Your task to perform on an android device: Empty the shopping cart on target. Add razer huntsman to the cart on target Image 0: 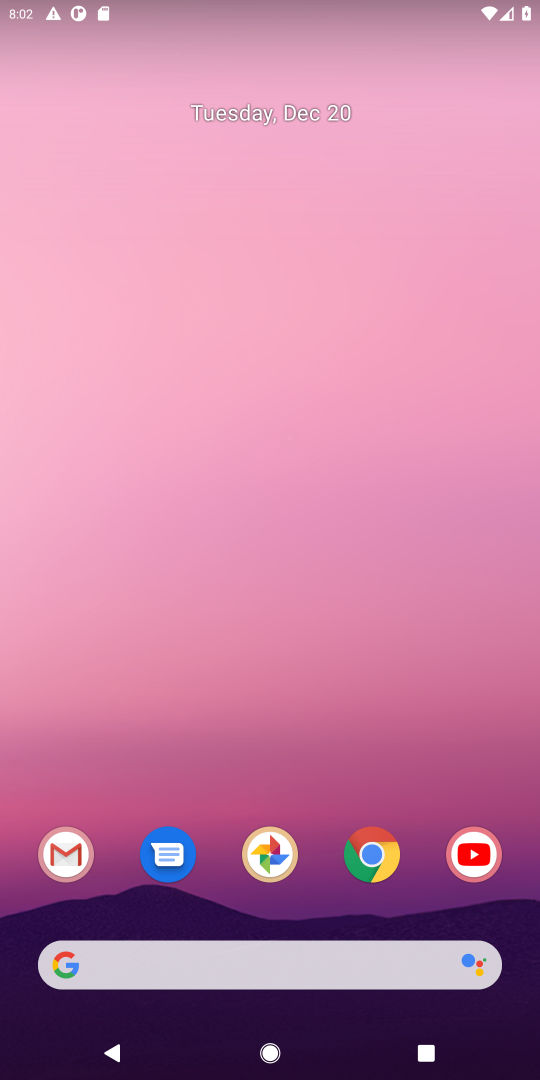
Step 0: click (370, 861)
Your task to perform on an android device: Empty the shopping cart on target. Add razer huntsman to the cart on target Image 1: 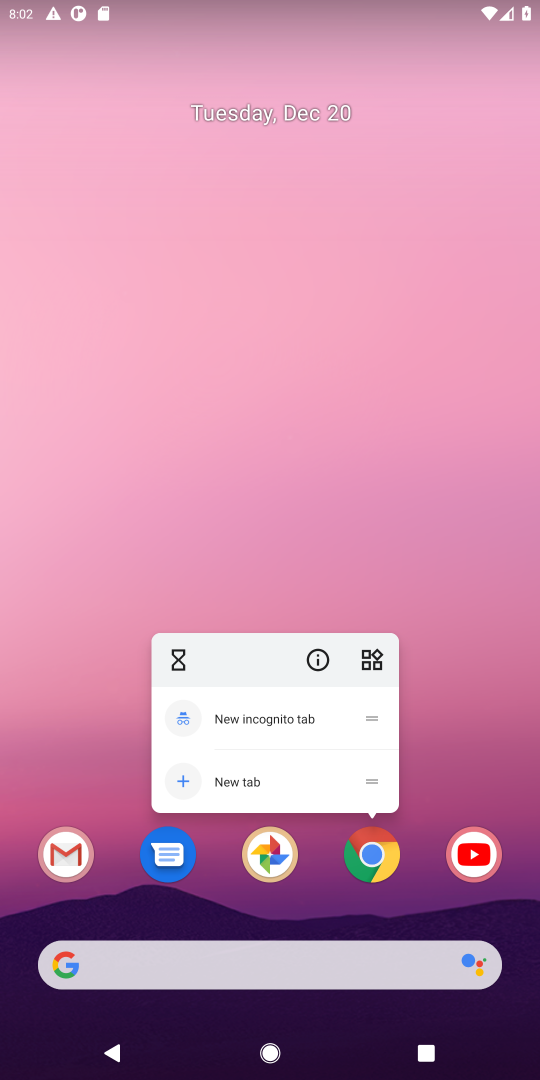
Step 1: click (370, 861)
Your task to perform on an android device: Empty the shopping cart on target. Add razer huntsman to the cart on target Image 2: 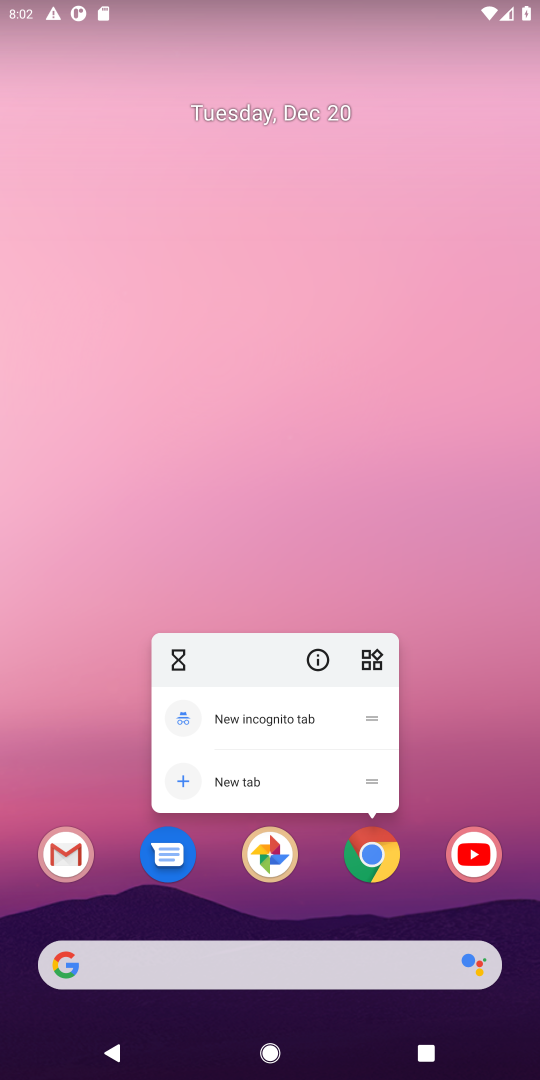
Step 2: click (370, 861)
Your task to perform on an android device: Empty the shopping cart on target. Add razer huntsman to the cart on target Image 3: 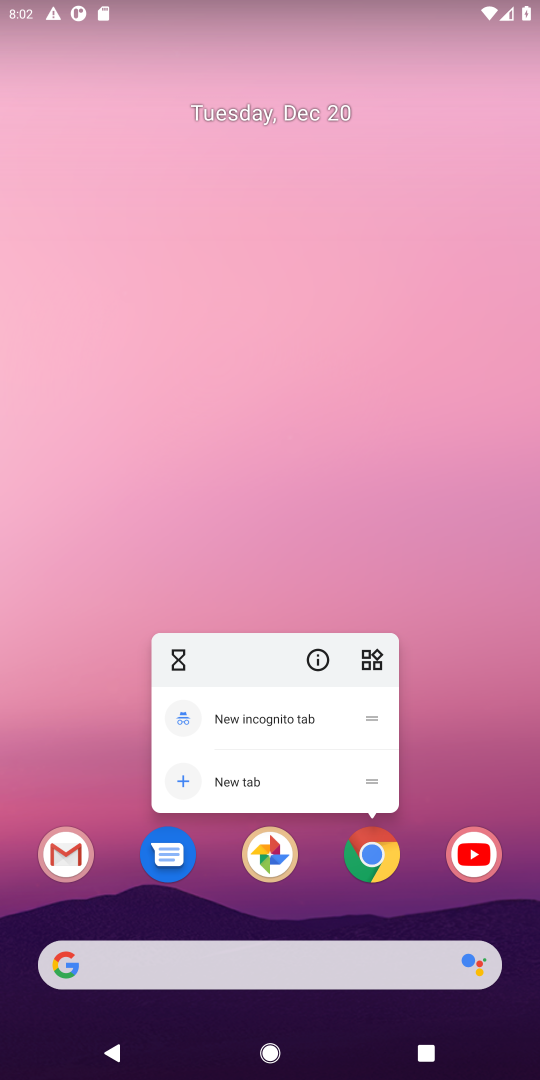
Step 3: click (373, 854)
Your task to perform on an android device: Empty the shopping cart on target. Add razer huntsman to the cart on target Image 4: 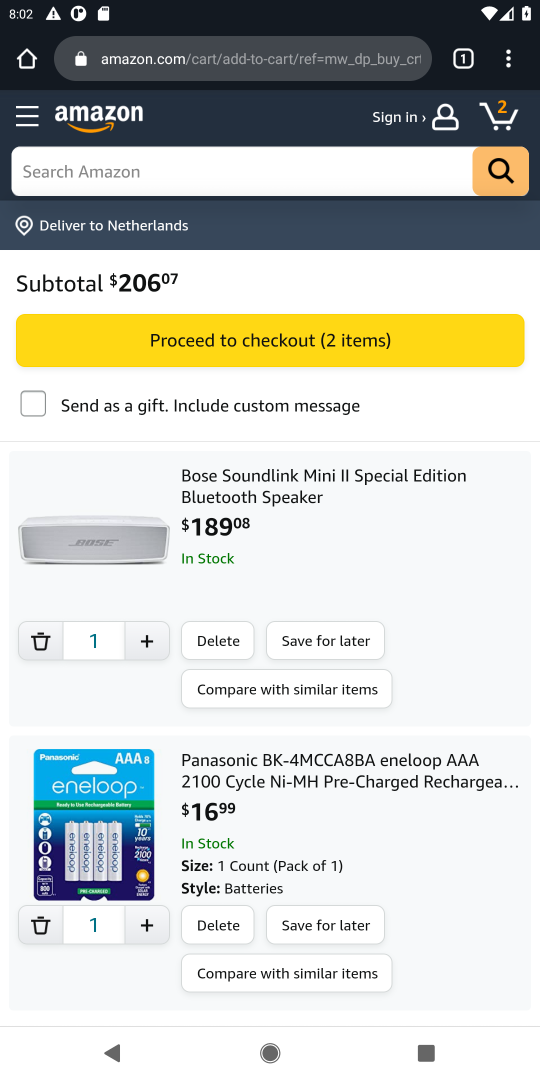
Step 4: click (180, 64)
Your task to perform on an android device: Empty the shopping cart on target. Add razer huntsman to the cart on target Image 5: 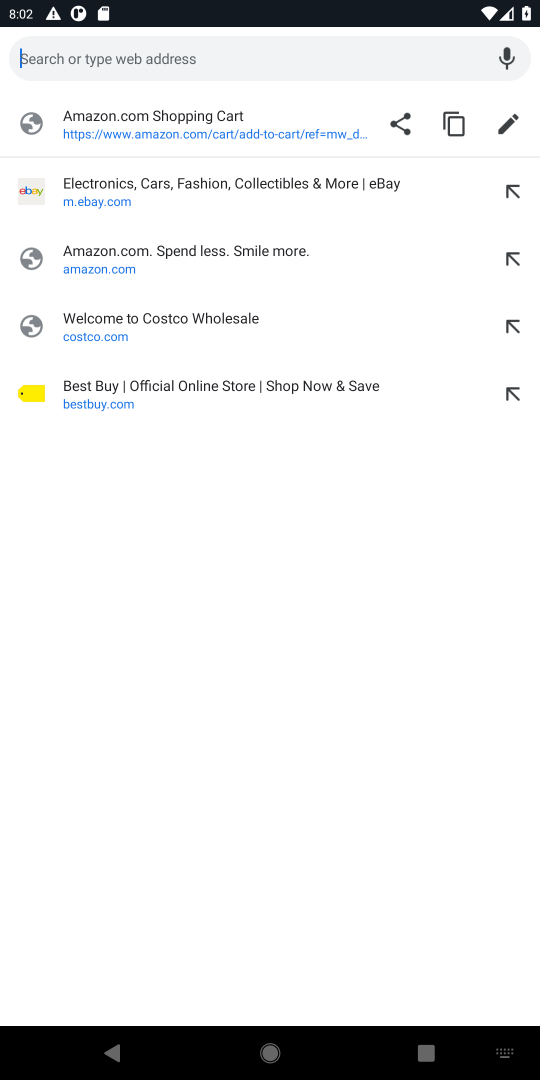
Step 5: type "target.com"
Your task to perform on an android device: Empty the shopping cart on target. Add razer huntsman to the cart on target Image 6: 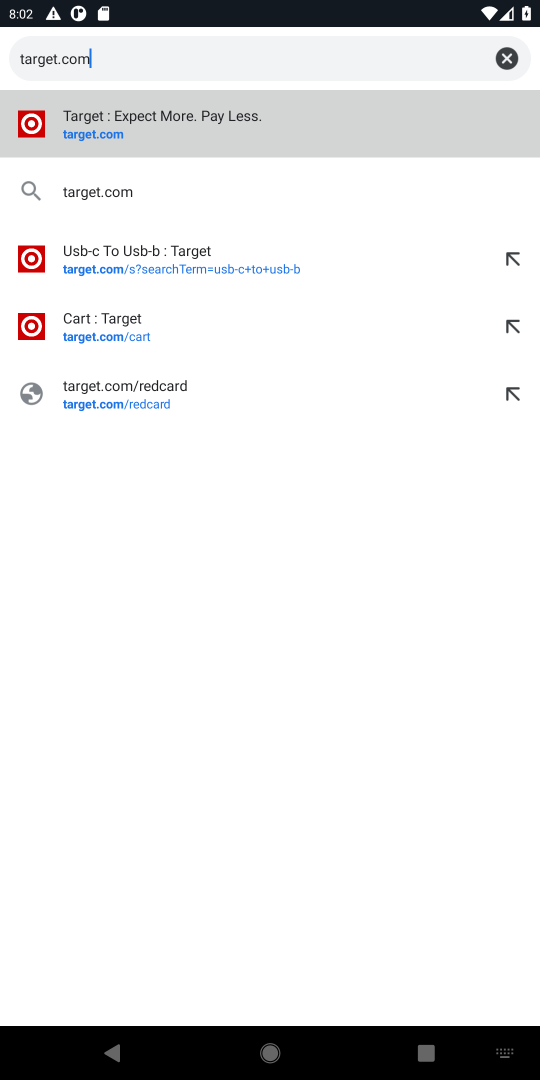
Step 6: click (76, 134)
Your task to perform on an android device: Empty the shopping cart on target. Add razer huntsman to the cart on target Image 7: 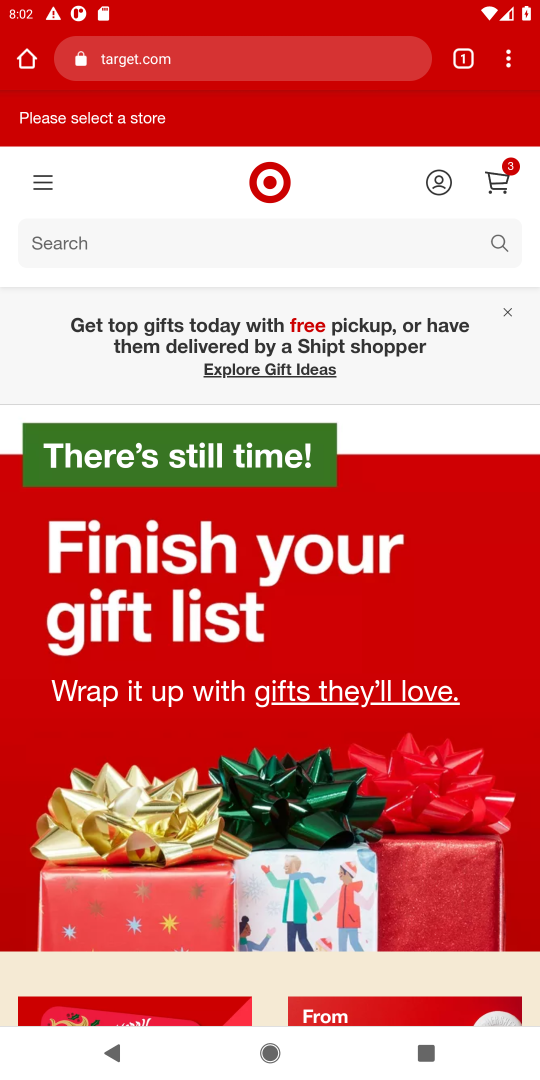
Step 7: click (491, 181)
Your task to perform on an android device: Empty the shopping cart on target. Add razer huntsman to the cart on target Image 8: 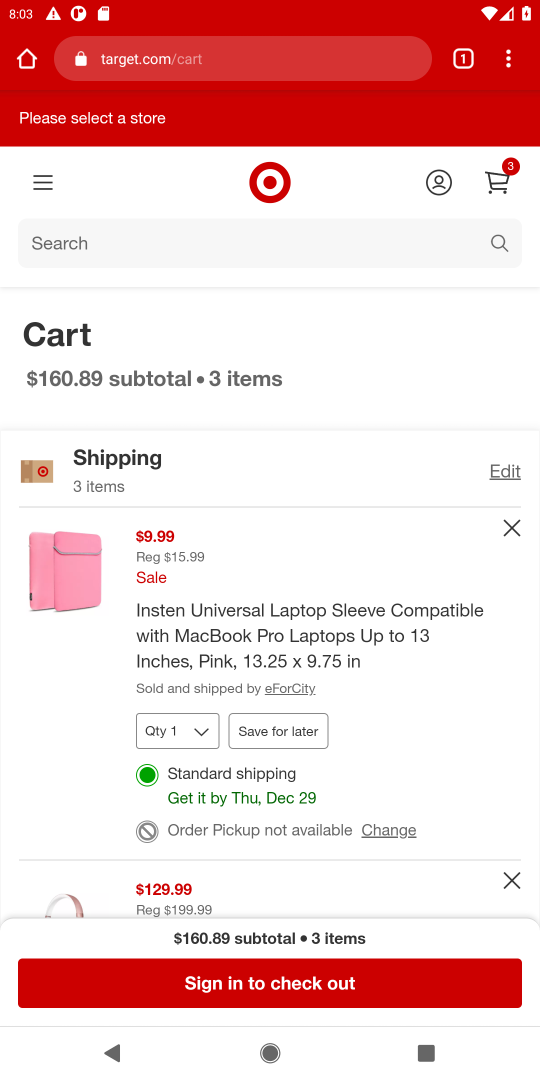
Step 8: click (505, 534)
Your task to perform on an android device: Empty the shopping cart on target. Add razer huntsman to the cart on target Image 9: 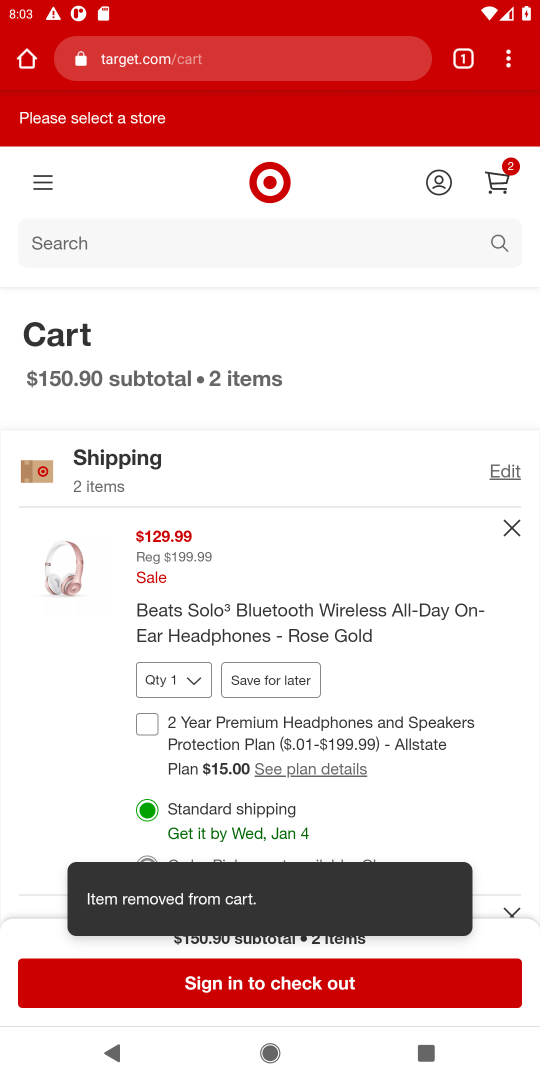
Step 9: click (505, 534)
Your task to perform on an android device: Empty the shopping cart on target. Add razer huntsman to the cart on target Image 10: 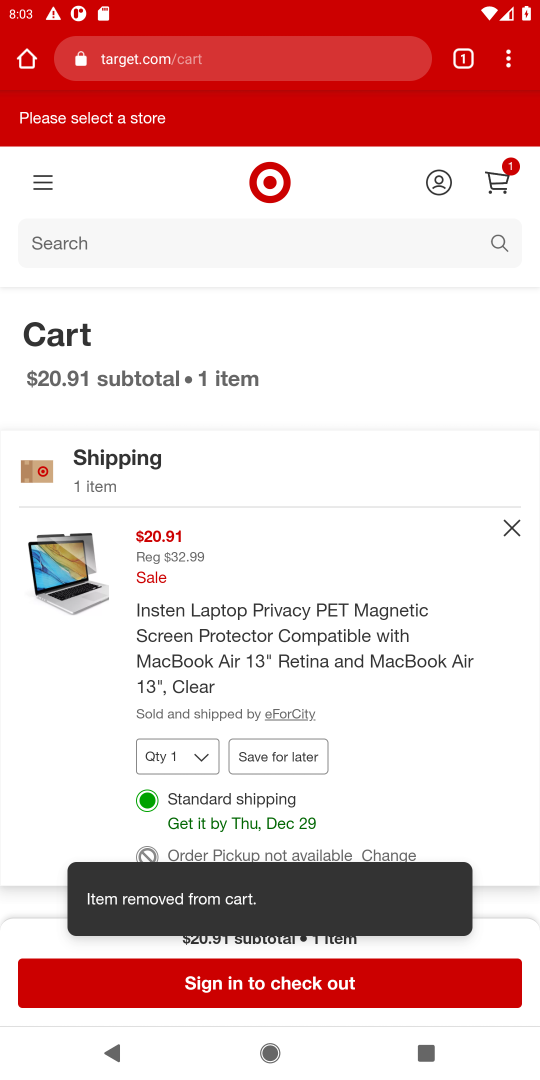
Step 10: click (505, 534)
Your task to perform on an android device: Empty the shopping cart on target. Add razer huntsman to the cart on target Image 11: 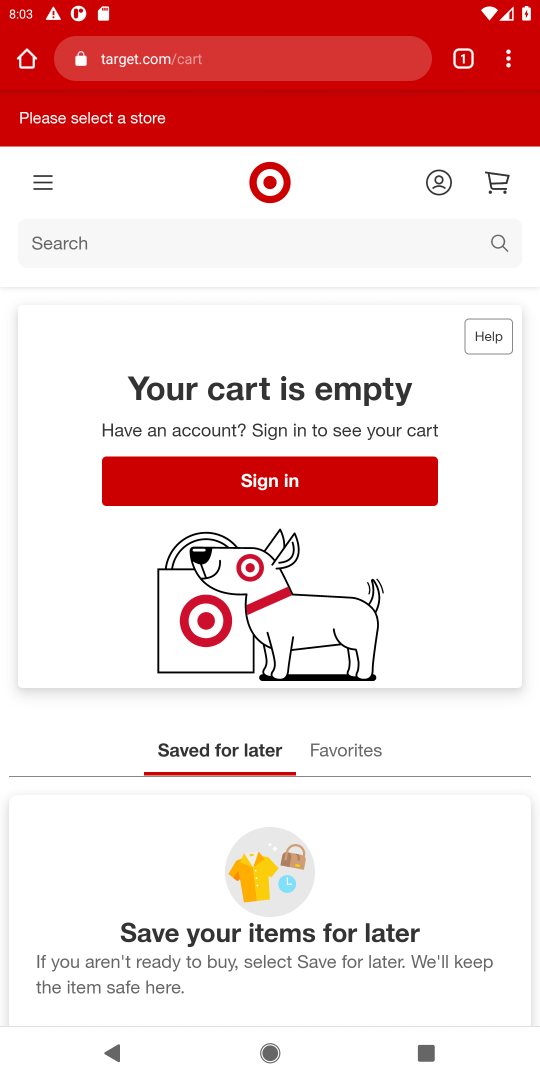
Step 11: click (62, 254)
Your task to perform on an android device: Empty the shopping cart on target. Add razer huntsman to the cart on target Image 12: 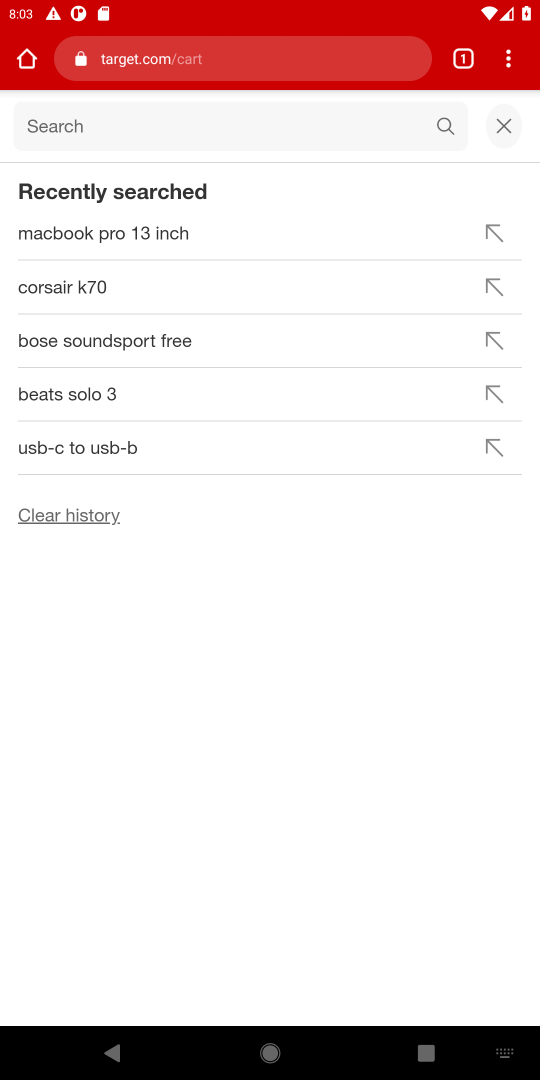
Step 12: type "razer huntsman"
Your task to perform on an android device: Empty the shopping cart on target. Add razer huntsman to the cart on target Image 13: 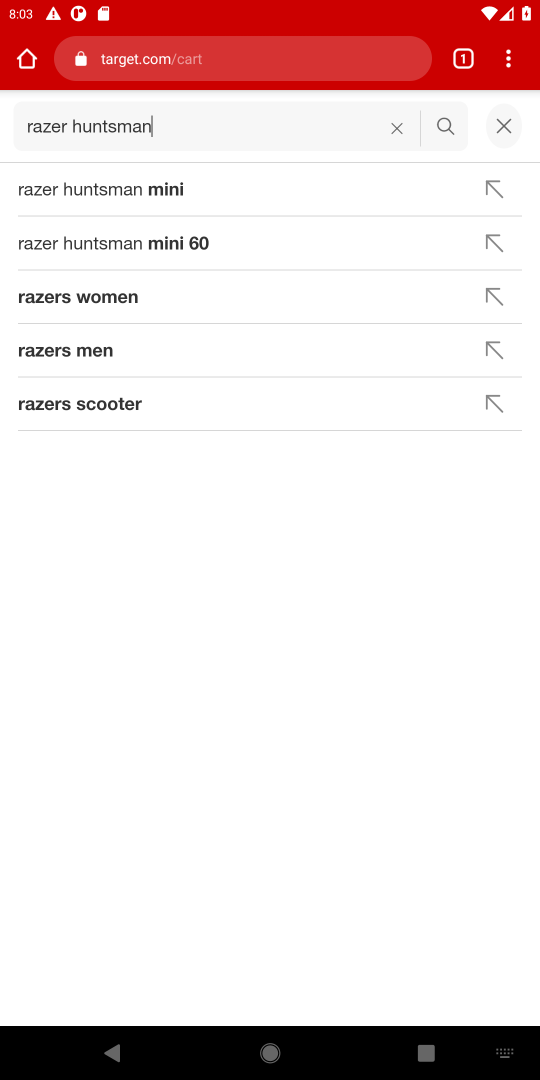
Step 13: click (445, 131)
Your task to perform on an android device: Empty the shopping cart on target. Add razer huntsman to the cart on target Image 14: 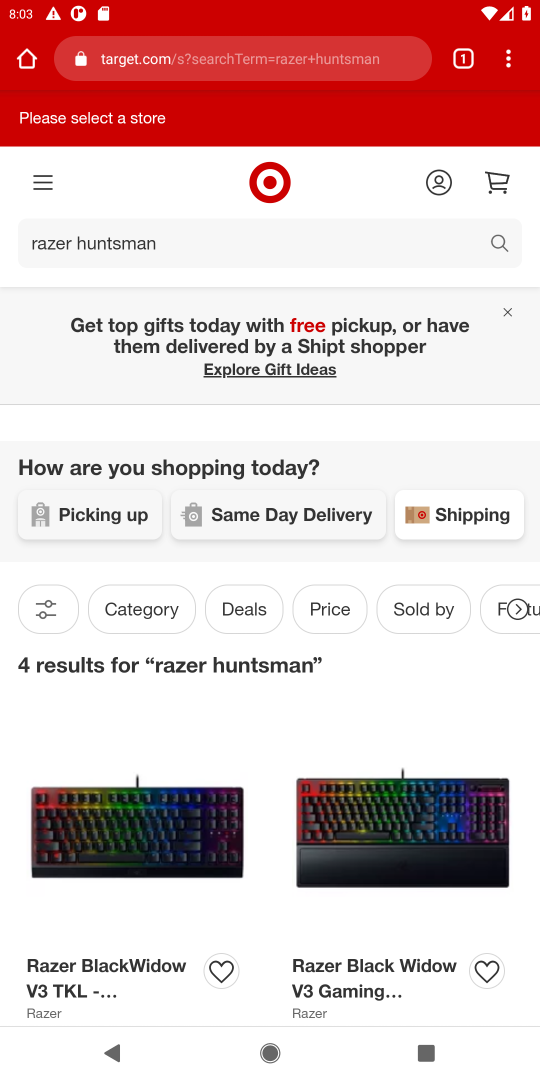
Step 14: drag from (243, 829) to (200, 448)
Your task to perform on an android device: Empty the shopping cart on target. Add razer huntsman to the cart on target Image 15: 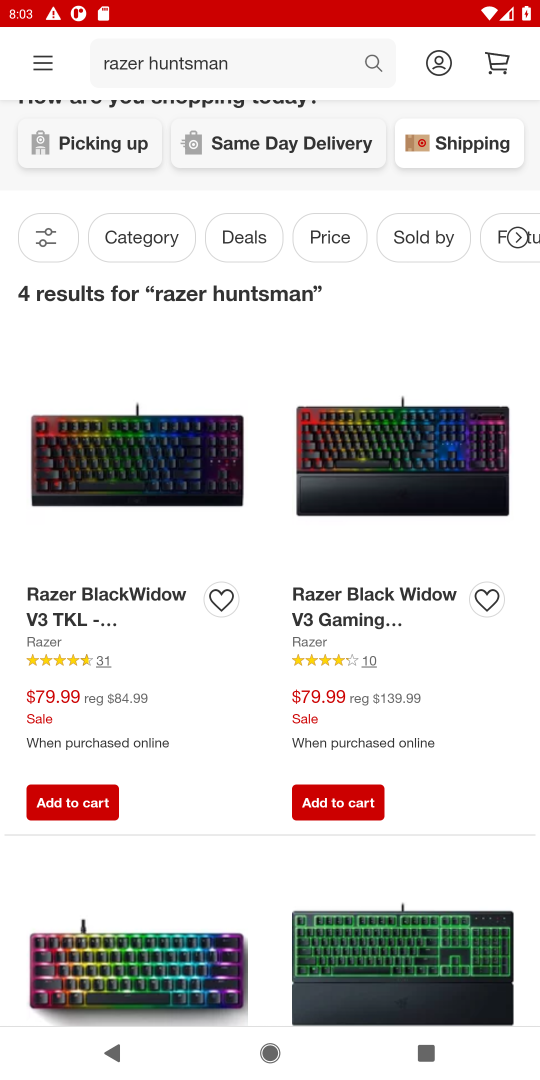
Step 15: drag from (173, 732) to (169, 466)
Your task to perform on an android device: Empty the shopping cart on target. Add razer huntsman to the cart on target Image 16: 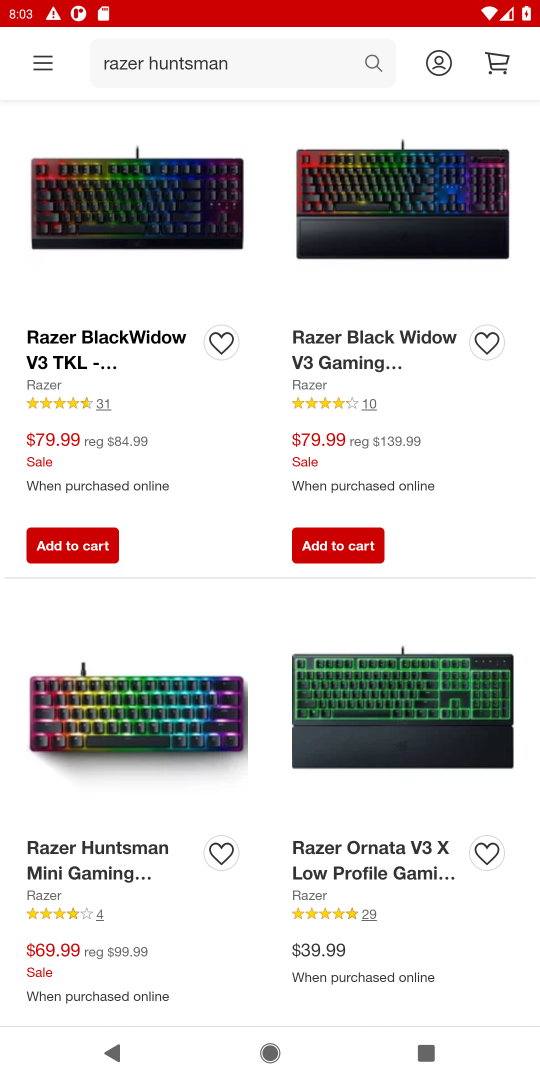
Step 16: click (96, 860)
Your task to perform on an android device: Empty the shopping cart on target. Add razer huntsman to the cart on target Image 17: 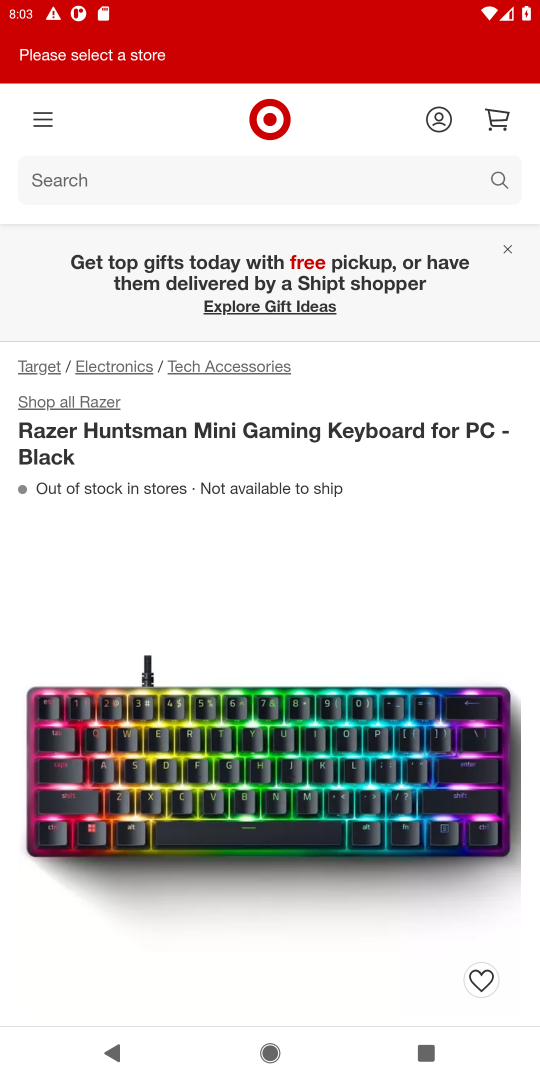
Step 17: drag from (171, 897) to (186, 489)
Your task to perform on an android device: Empty the shopping cart on target. Add razer huntsman to the cart on target Image 18: 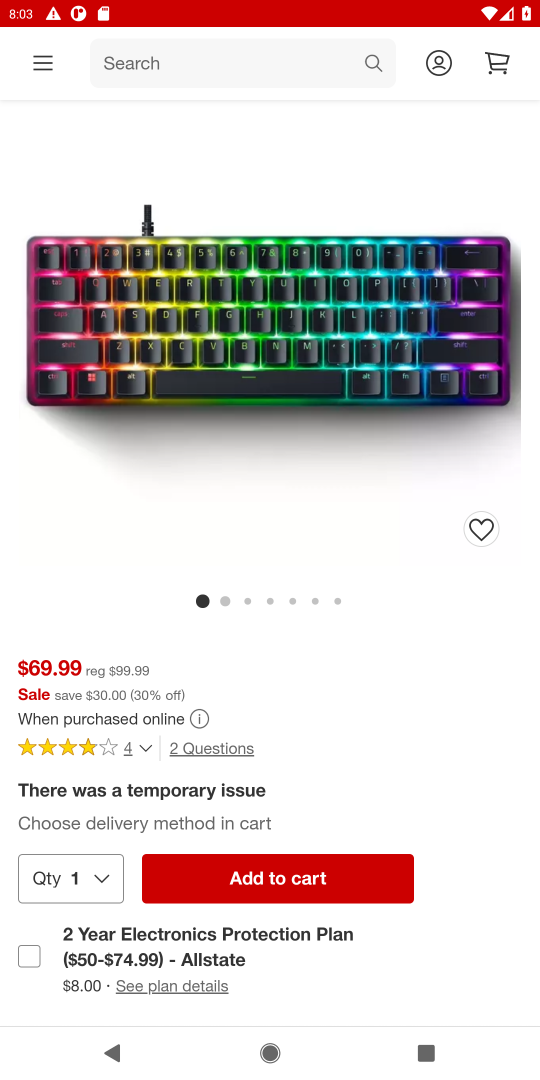
Step 18: click (261, 872)
Your task to perform on an android device: Empty the shopping cart on target. Add razer huntsman to the cart on target Image 19: 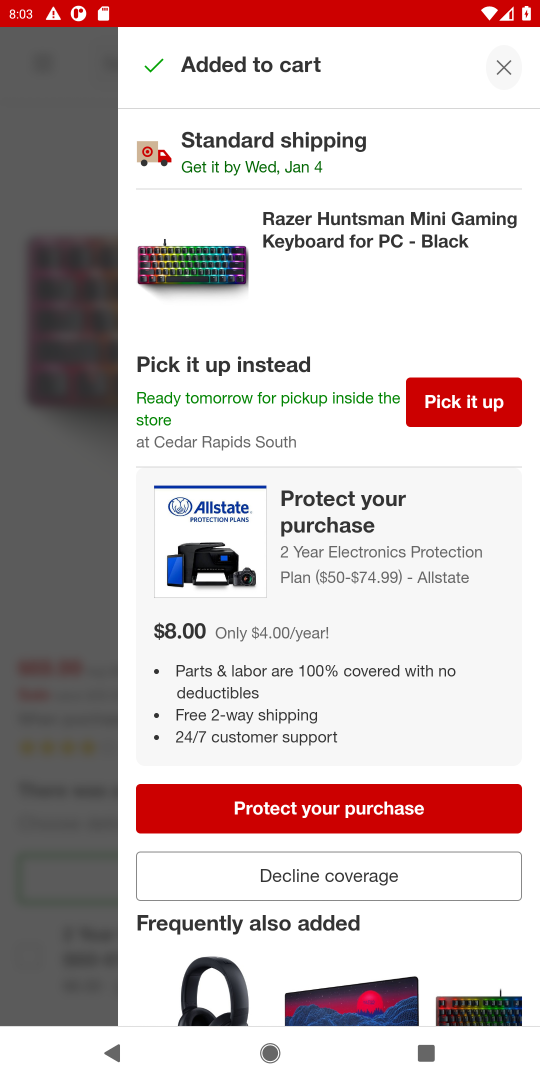
Step 19: task complete